Your task to perform on an android device: change text size in settings app Image 0: 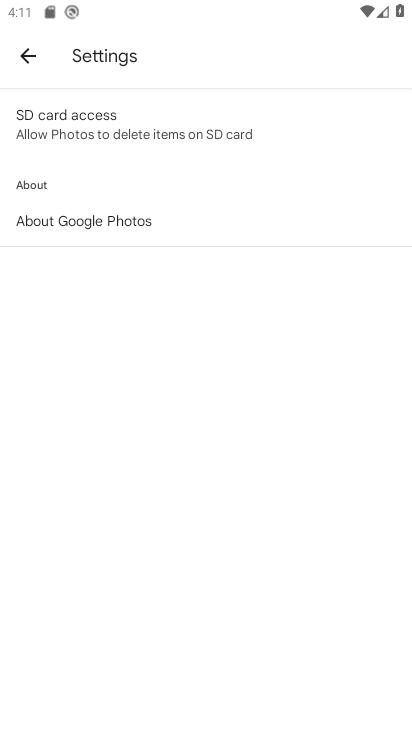
Step 0: press home button
Your task to perform on an android device: change text size in settings app Image 1: 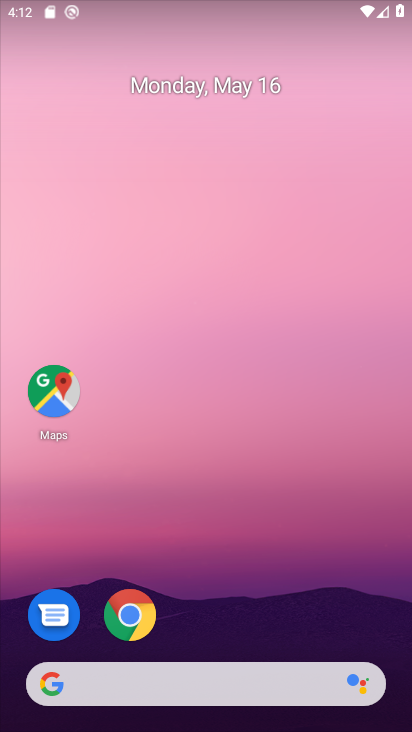
Step 1: drag from (233, 635) to (232, 138)
Your task to perform on an android device: change text size in settings app Image 2: 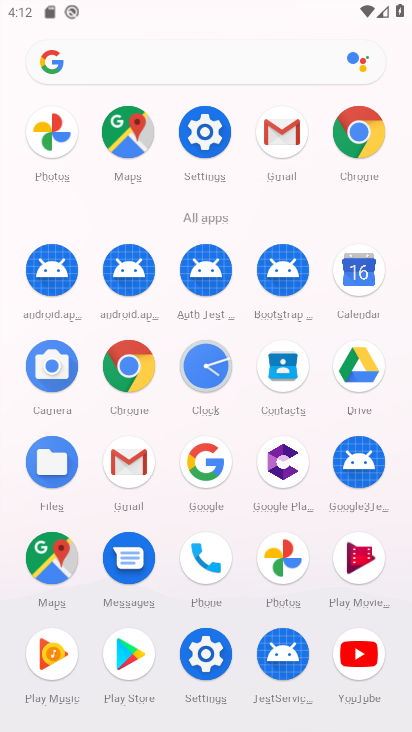
Step 2: click (194, 148)
Your task to perform on an android device: change text size in settings app Image 3: 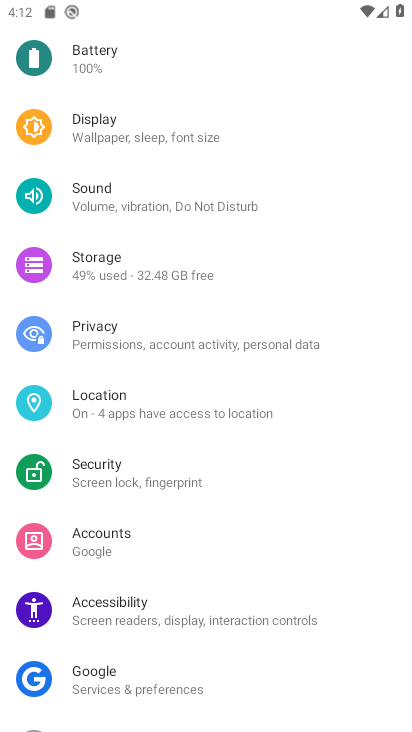
Step 3: drag from (165, 251) to (171, 532)
Your task to perform on an android device: change text size in settings app Image 4: 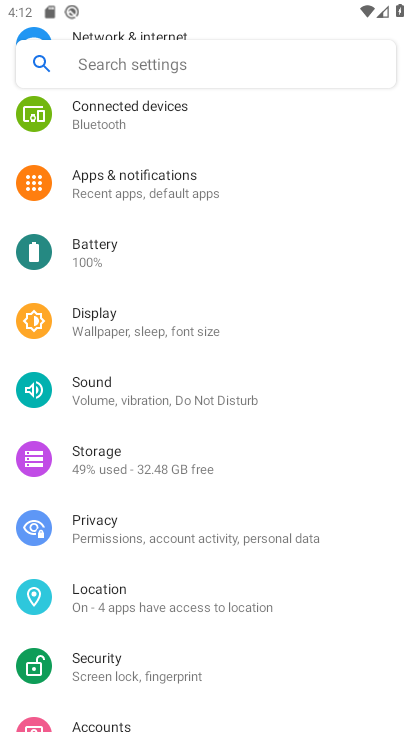
Step 4: click (184, 576)
Your task to perform on an android device: change text size in settings app Image 5: 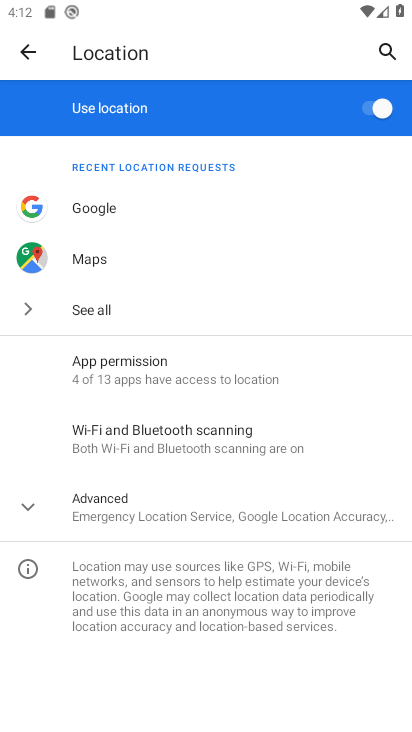
Step 5: click (20, 47)
Your task to perform on an android device: change text size in settings app Image 6: 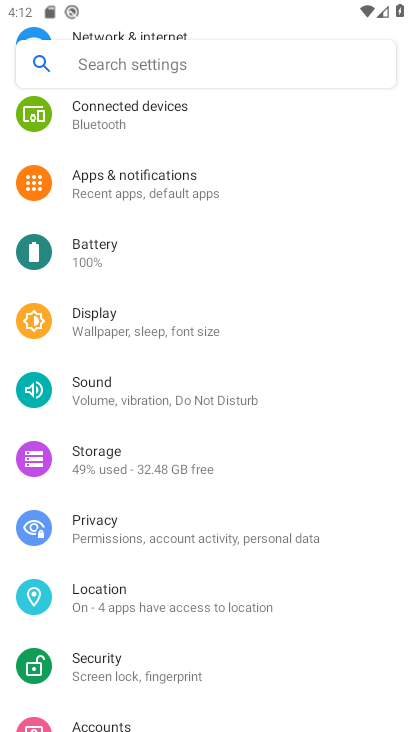
Step 6: drag from (235, 201) to (233, 502)
Your task to perform on an android device: change text size in settings app Image 7: 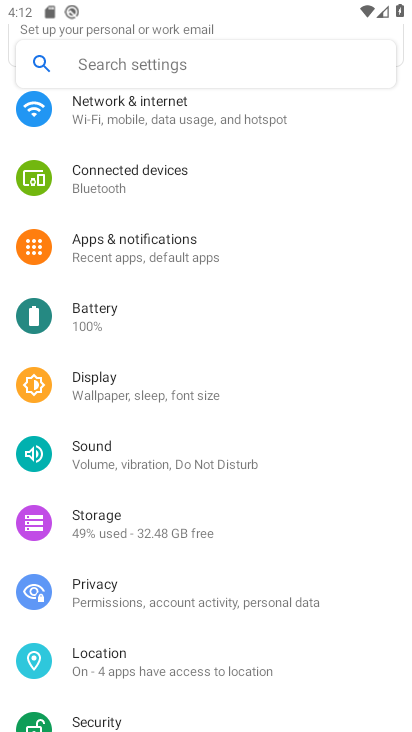
Step 7: click (125, 390)
Your task to perform on an android device: change text size in settings app Image 8: 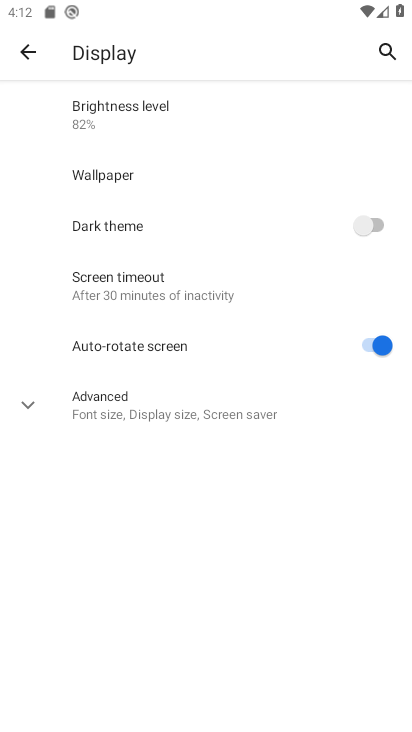
Step 8: click (124, 414)
Your task to perform on an android device: change text size in settings app Image 9: 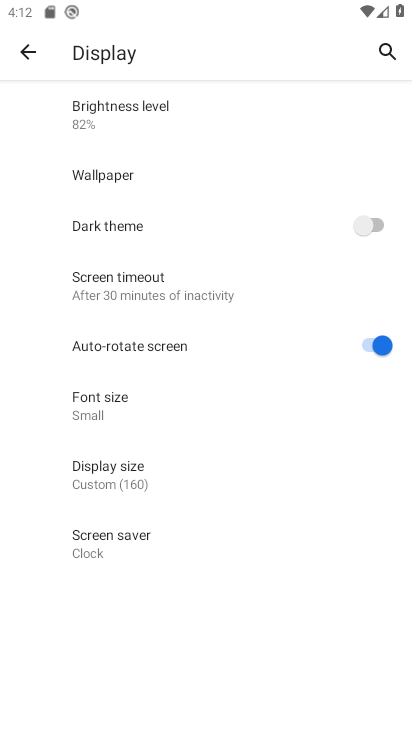
Step 9: click (101, 418)
Your task to perform on an android device: change text size in settings app Image 10: 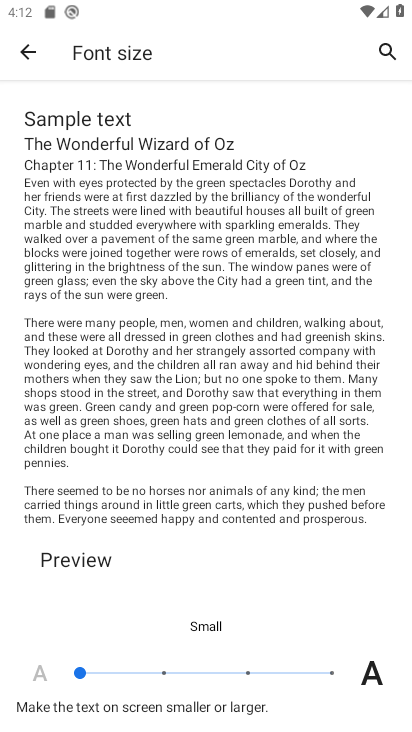
Step 10: click (167, 677)
Your task to perform on an android device: change text size in settings app Image 11: 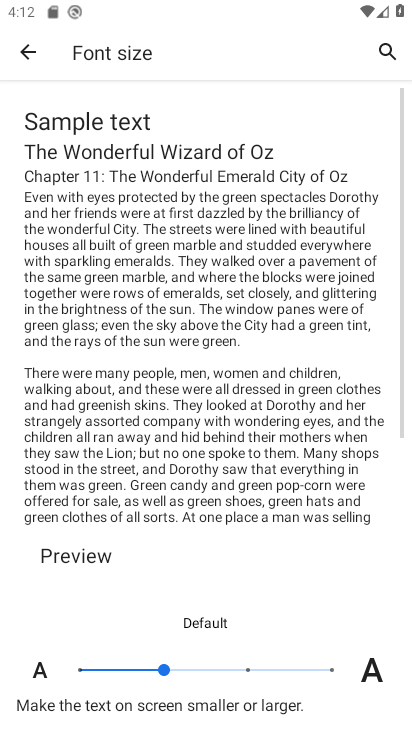
Step 11: task complete